Your task to perform on an android device: change keyboard looks Image 0: 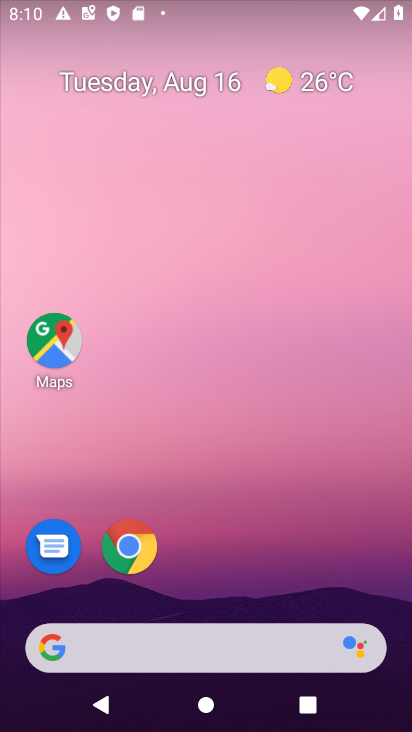
Step 0: drag from (235, 523) to (223, 16)
Your task to perform on an android device: change keyboard looks Image 1: 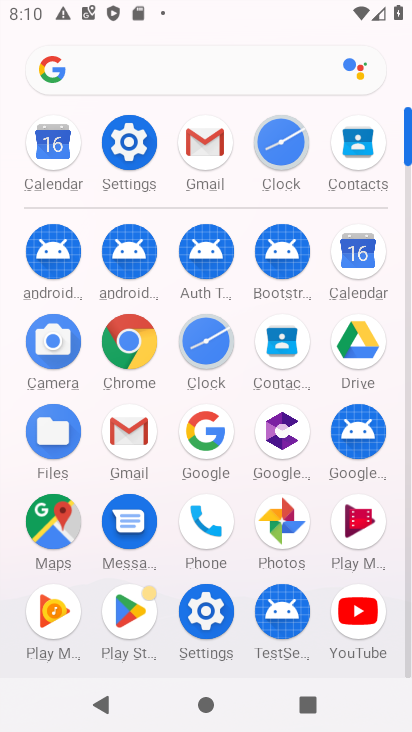
Step 1: click (129, 142)
Your task to perform on an android device: change keyboard looks Image 2: 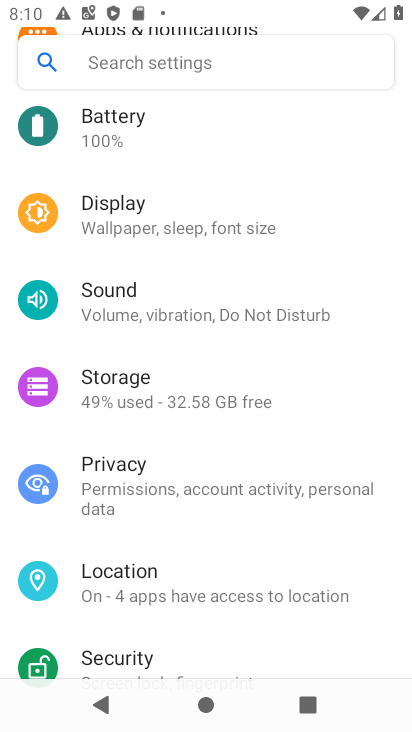
Step 2: drag from (247, 548) to (286, 2)
Your task to perform on an android device: change keyboard looks Image 3: 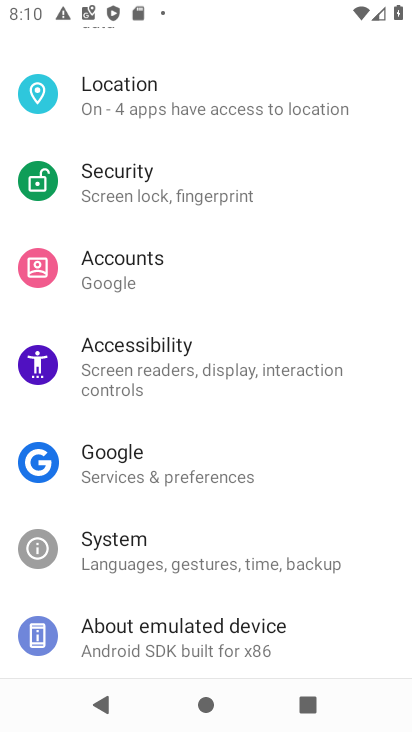
Step 3: click (219, 554)
Your task to perform on an android device: change keyboard looks Image 4: 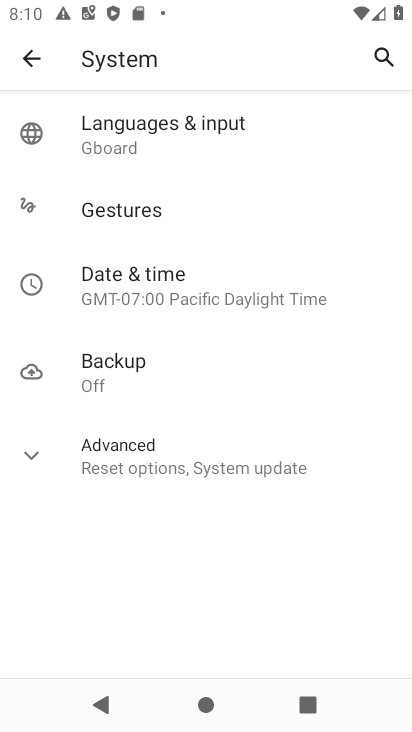
Step 4: click (165, 138)
Your task to perform on an android device: change keyboard looks Image 5: 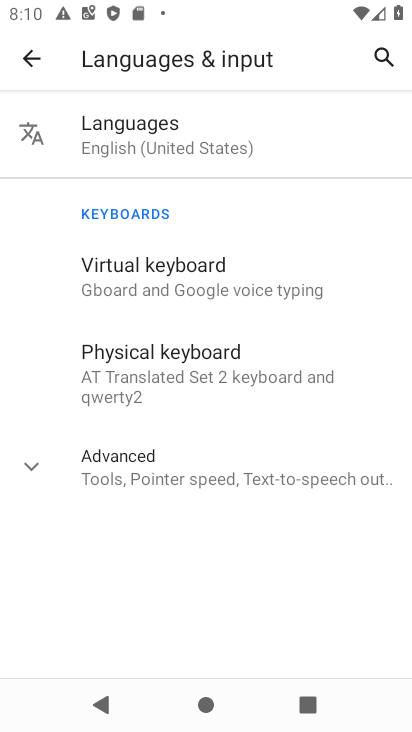
Step 5: click (191, 279)
Your task to perform on an android device: change keyboard looks Image 6: 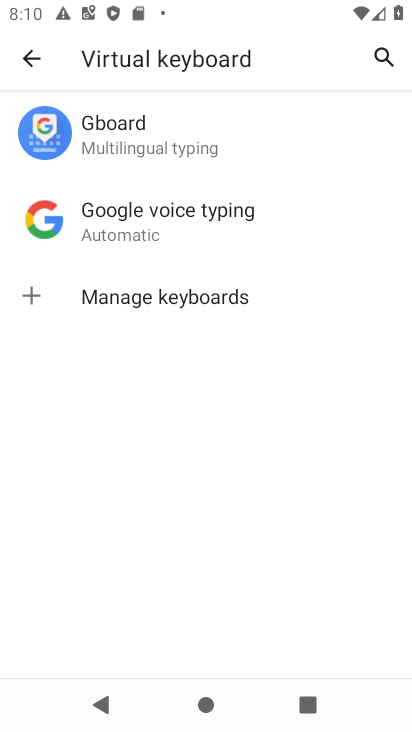
Step 6: click (173, 144)
Your task to perform on an android device: change keyboard looks Image 7: 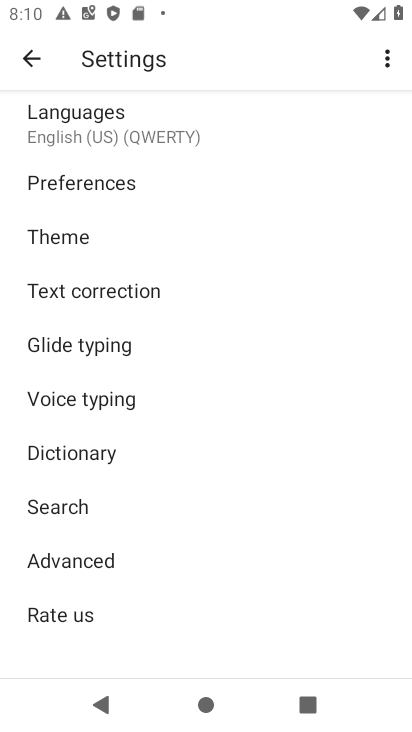
Step 7: click (89, 232)
Your task to perform on an android device: change keyboard looks Image 8: 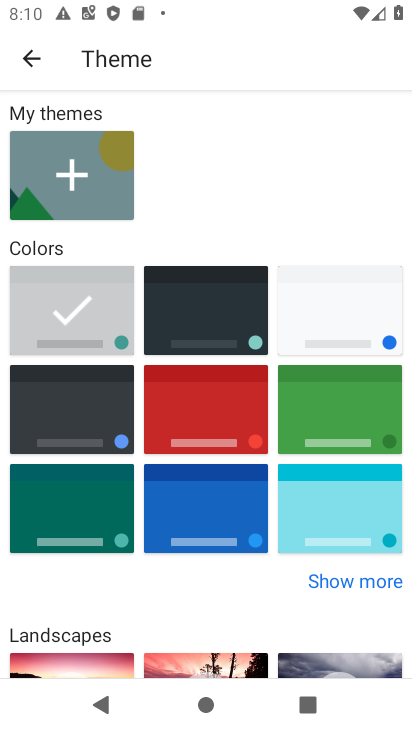
Step 8: click (191, 403)
Your task to perform on an android device: change keyboard looks Image 9: 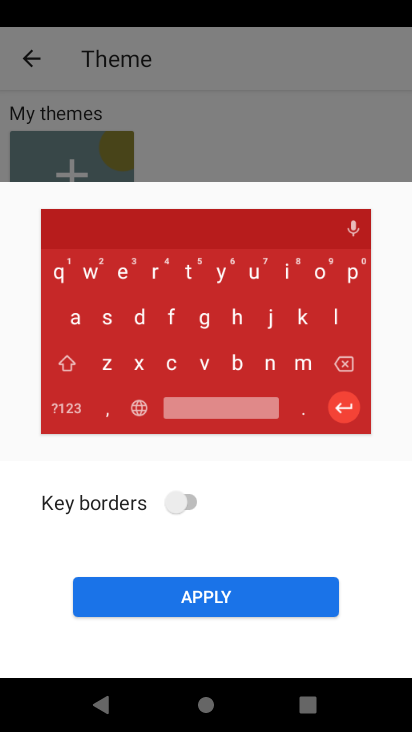
Step 9: task complete